Your task to perform on an android device: turn off priority inbox in the gmail app Image 0: 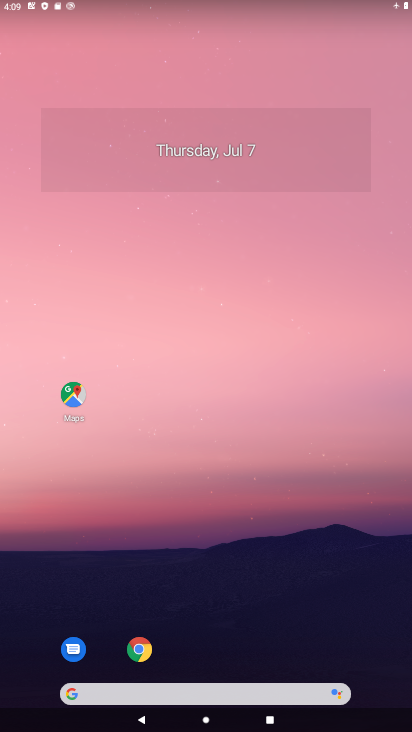
Step 0: drag from (368, 680) to (308, 83)
Your task to perform on an android device: turn off priority inbox in the gmail app Image 1: 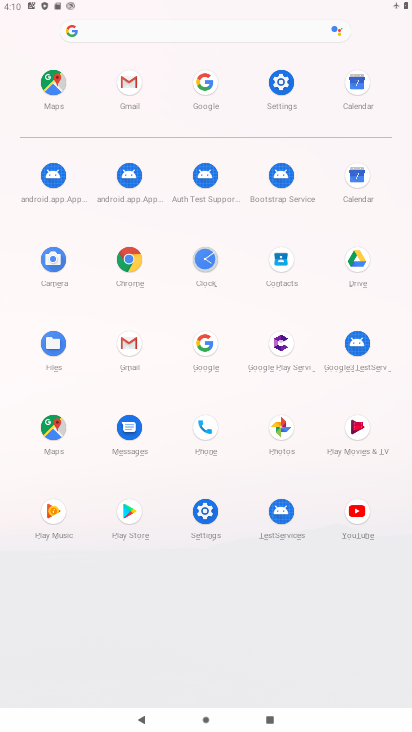
Step 1: click (128, 344)
Your task to perform on an android device: turn off priority inbox in the gmail app Image 2: 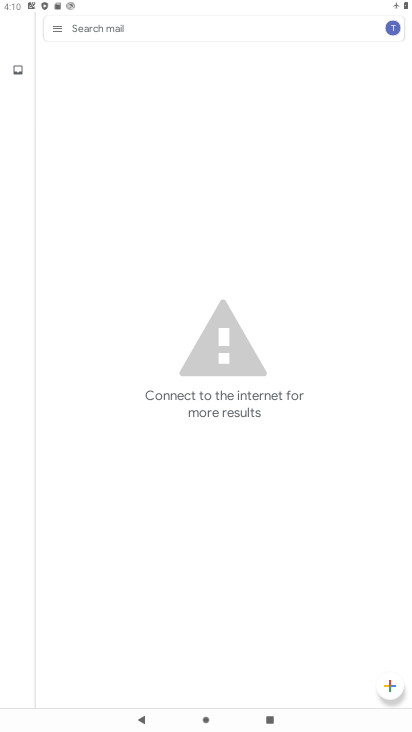
Step 2: click (56, 25)
Your task to perform on an android device: turn off priority inbox in the gmail app Image 3: 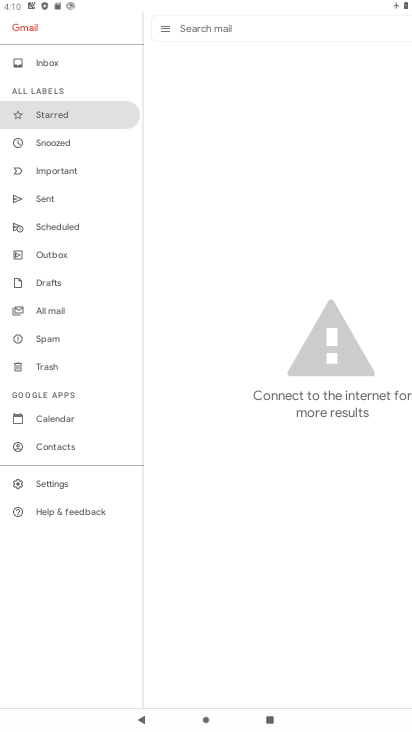
Step 3: click (84, 488)
Your task to perform on an android device: turn off priority inbox in the gmail app Image 4: 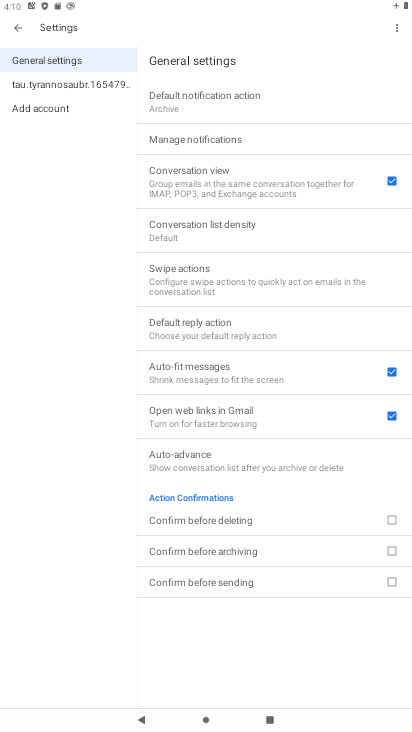
Step 4: task complete